Your task to perform on an android device: turn off priority inbox in the gmail app Image 0: 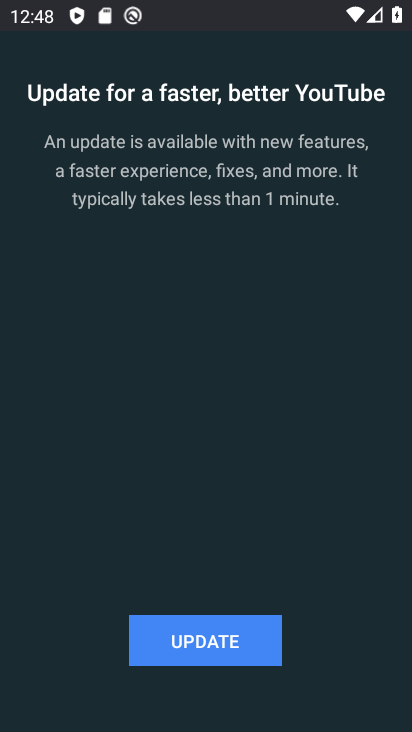
Step 0: press home button
Your task to perform on an android device: turn off priority inbox in the gmail app Image 1: 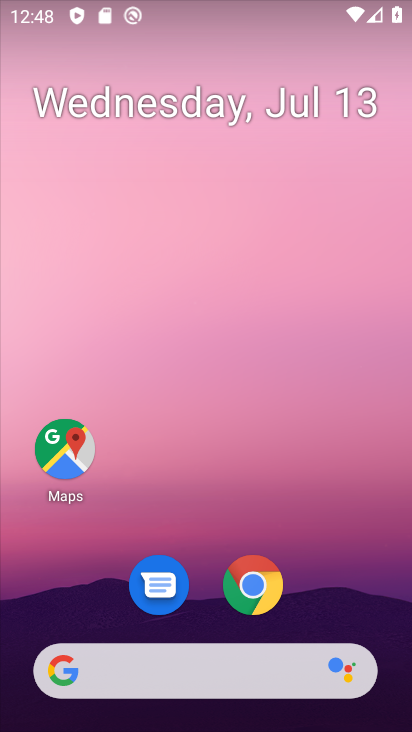
Step 1: drag from (337, 588) to (337, 11)
Your task to perform on an android device: turn off priority inbox in the gmail app Image 2: 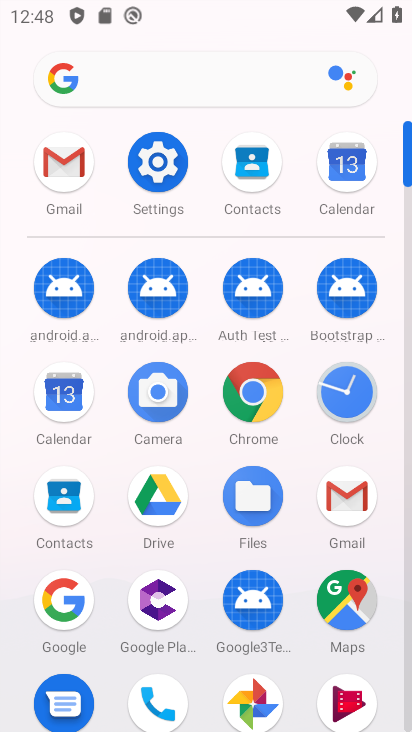
Step 2: click (343, 501)
Your task to perform on an android device: turn off priority inbox in the gmail app Image 3: 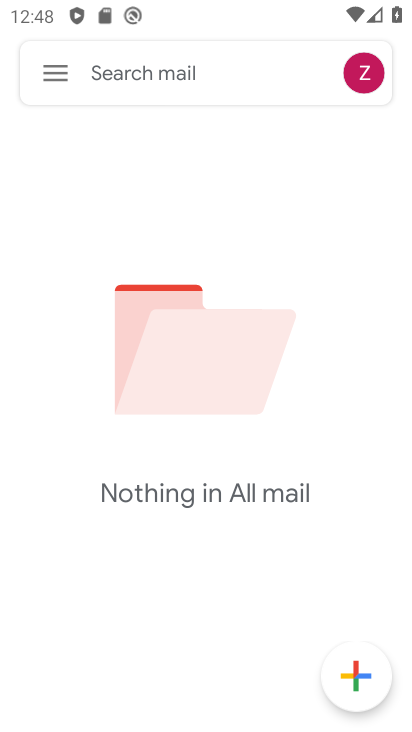
Step 3: click (58, 82)
Your task to perform on an android device: turn off priority inbox in the gmail app Image 4: 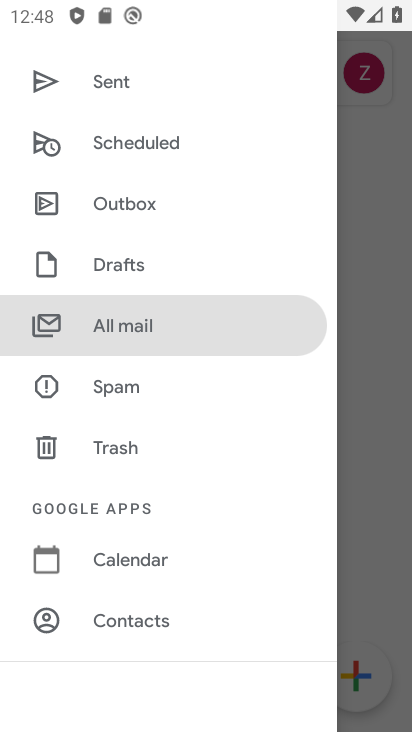
Step 4: drag from (240, 483) to (276, 230)
Your task to perform on an android device: turn off priority inbox in the gmail app Image 5: 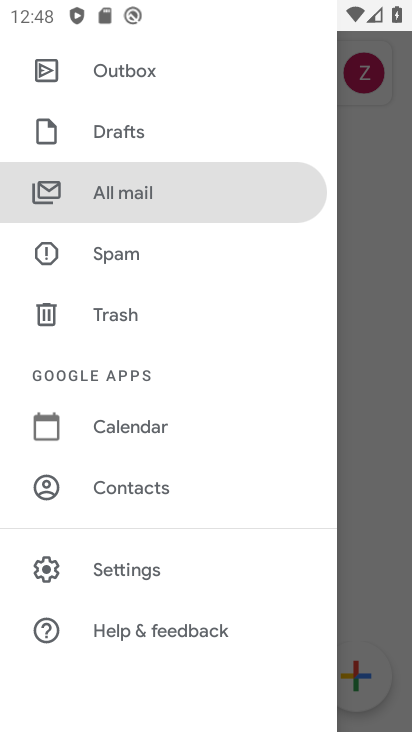
Step 5: click (148, 563)
Your task to perform on an android device: turn off priority inbox in the gmail app Image 6: 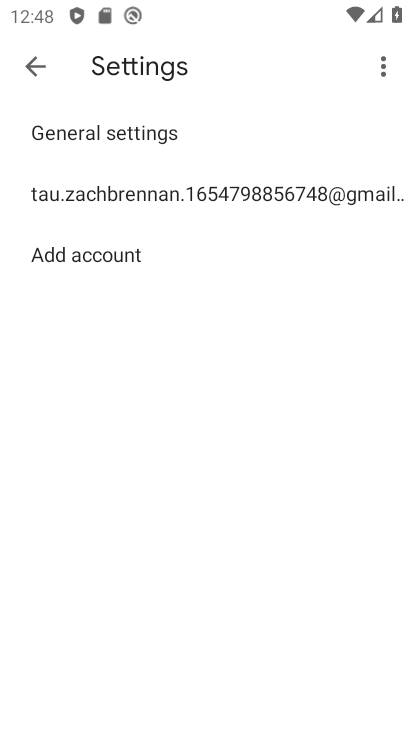
Step 6: click (152, 189)
Your task to perform on an android device: turn off priority inbox in the gmail app Image 7: 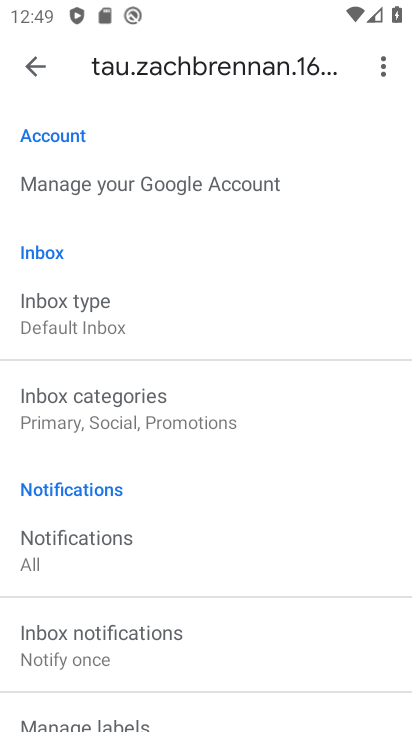
Step 7: click (52, 306)
Your task to perform on an android device: turn off priority inbox in the gmail app Image 8: 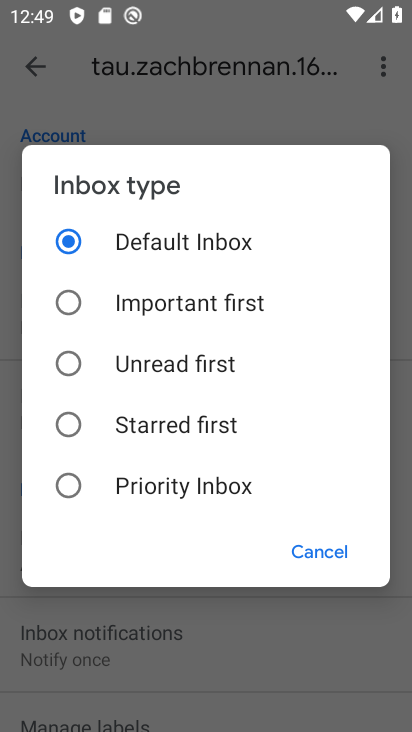
Step 8: click (306, 549)
Your task to perform on an android device: turn off priority inbox in the gmail app Image 9: 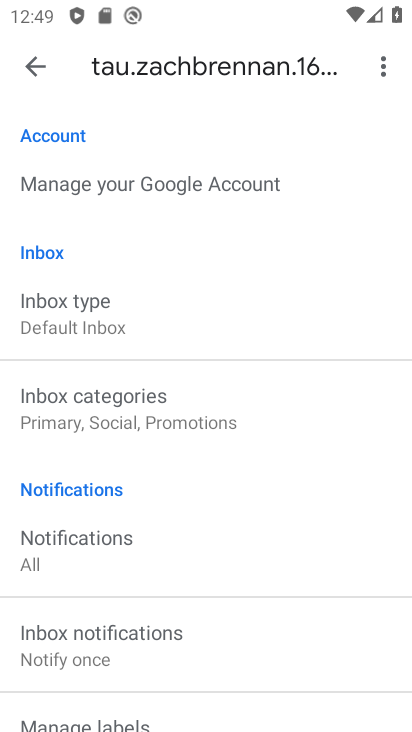
Step 9: task complete